Your task to perform on an android device: uninstall "VLC for Android" Image 0: 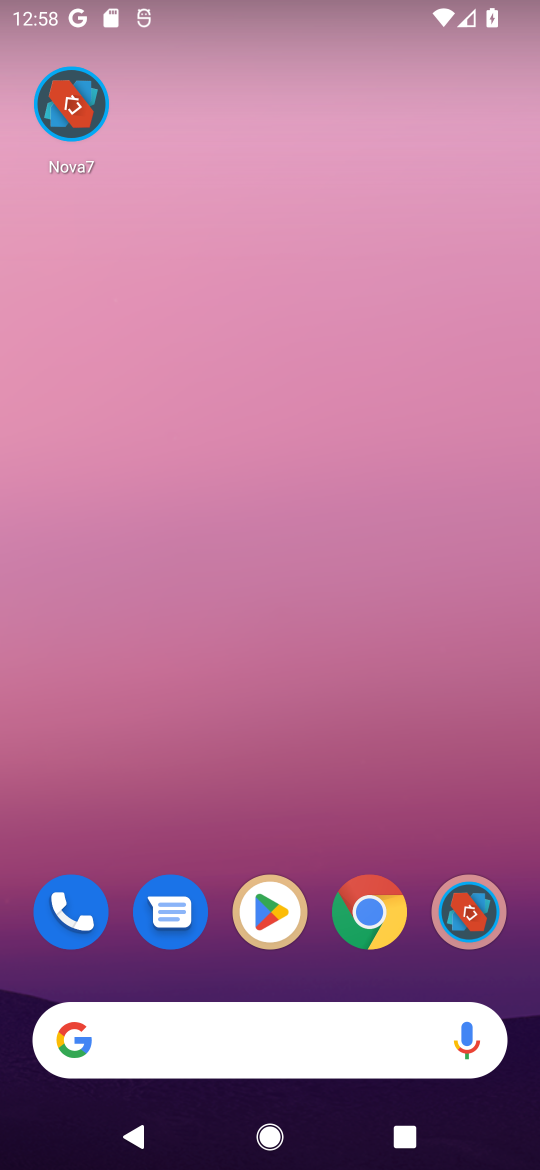
Step 0: click (277, 911)
Your task to perform on an android device: uninstall "VLC for Android" Image 1: 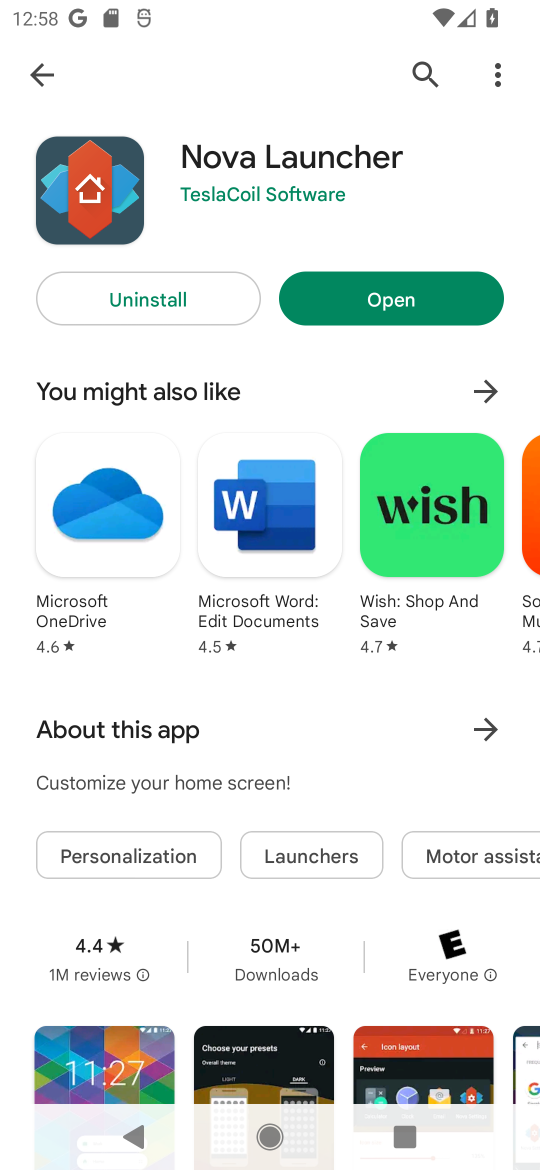
Step 1: click (413, 63)
Your task to perform on an android device: uninstall "VLC for Android" Image 2: 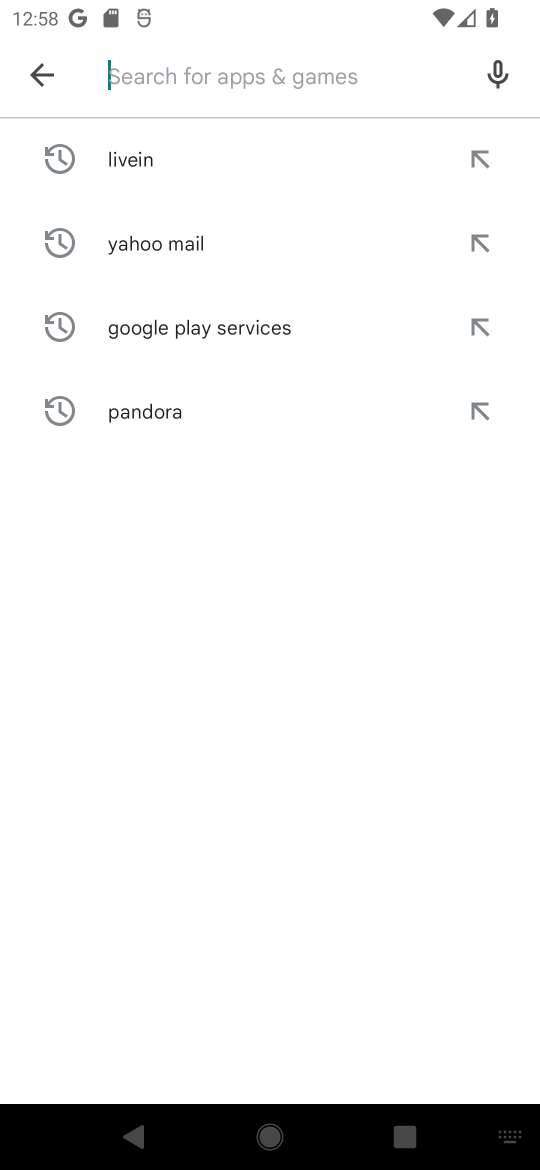
Step 2: click (267, 91)
Your task to perform on an android device: uninstall "VLC for Android" Image 3: 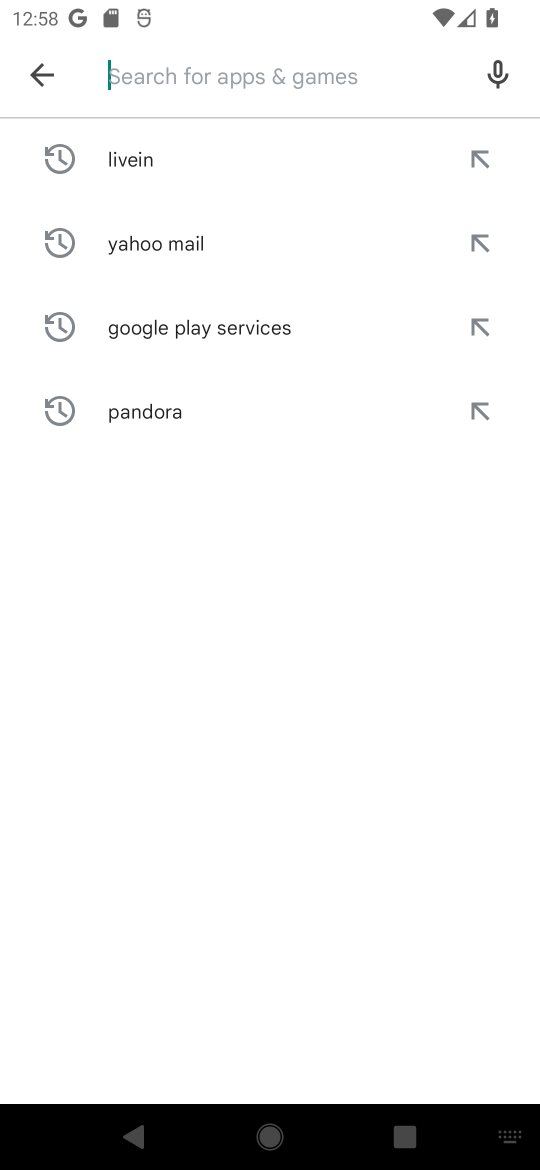
Step 3: type "vlc"
Your task to perform on an android device: uninstall "VLC for Android" Image 4: 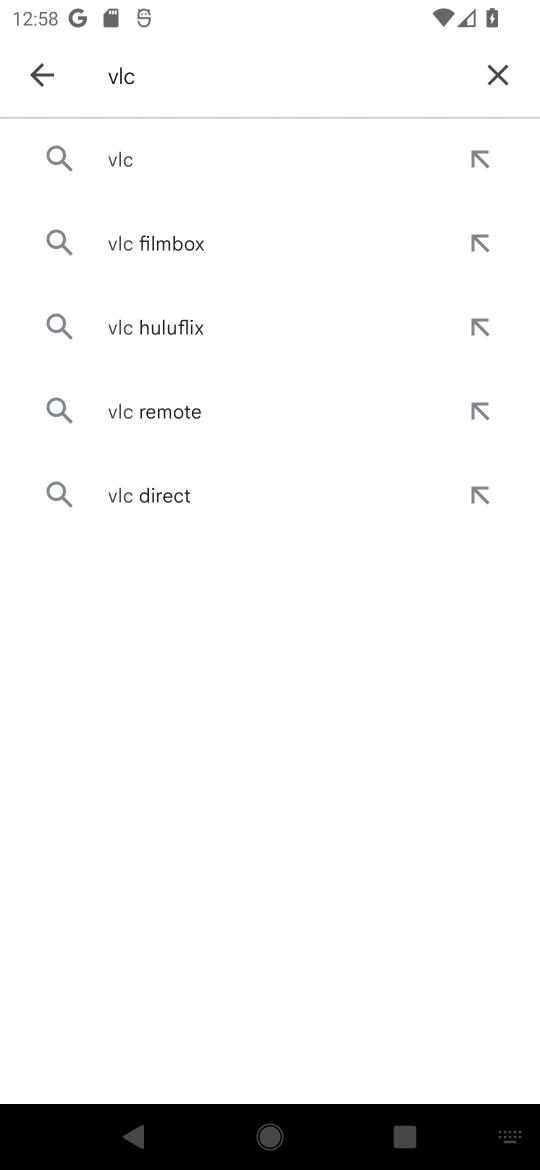
Step 4: click (150, 168)
Your task to perform on an android device: uninstall "VLC for Android" Image 5: 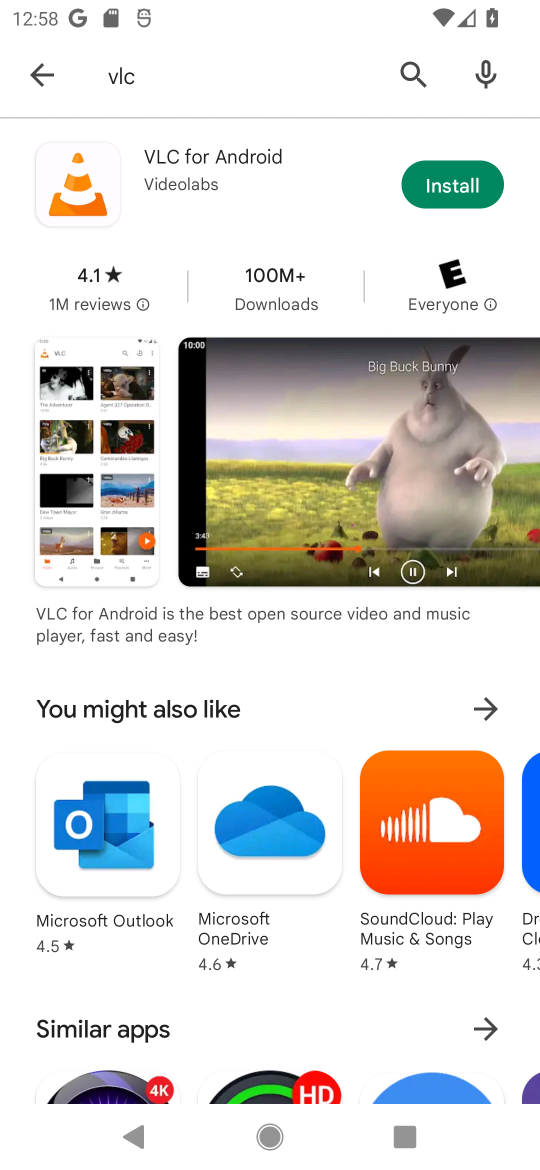
Step 5: task complete